Your task to perform on an android device: choose inbox layout in the gmail app Image 0: 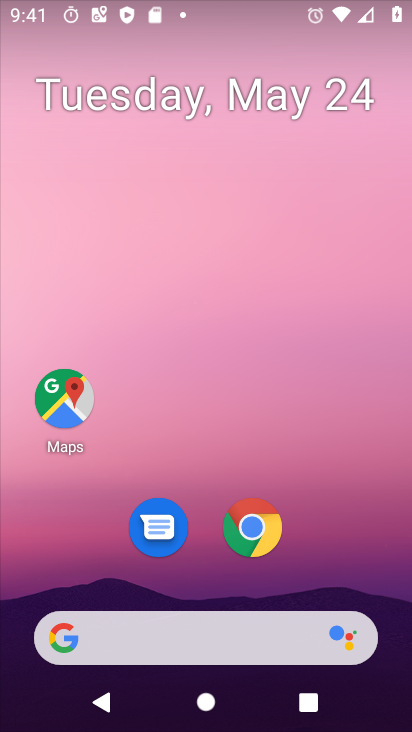
Step 0: drag from (346, 391) to (339, 320)
Your task to perform on an android device: choose inbox layout in the gmail app Image 1: 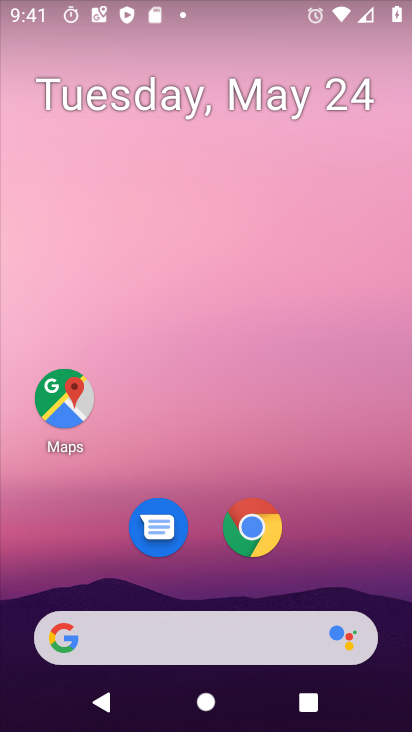
Step 1: drag from (377, 679) to (326, 256)
Your task to perform on an android device: choose inbox layout in the gmail app Image 2: 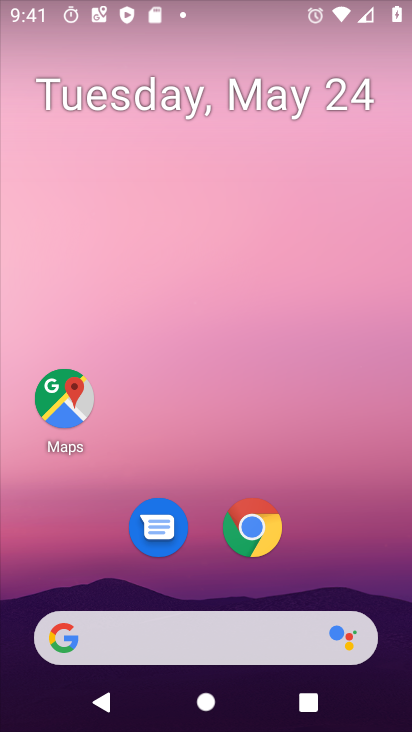
Step 2: click (312, 143)
Your task to perform on an android device: choose inbox layout in the gmail app Image 3: 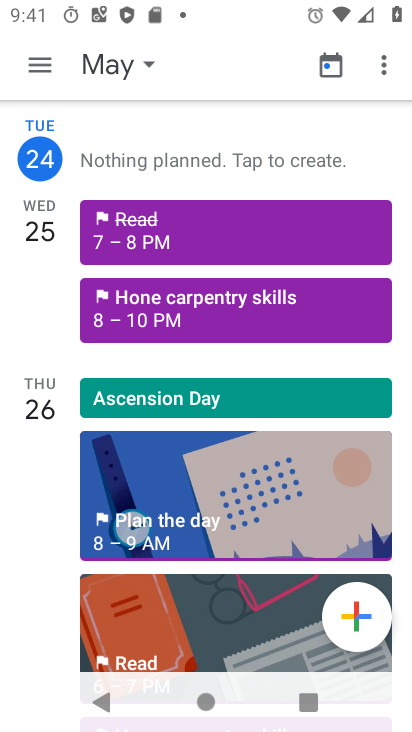
Step 3: click (393, 412)
Your task to perform on an android device: choose inbox layout in the gmail app Image 4: 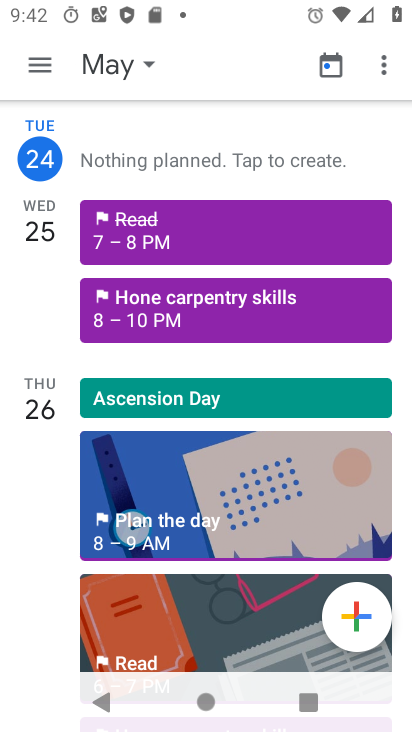
Step 4: press home button
Your task to perform on an android device: choose inbox layout in the gmail app Image 5: 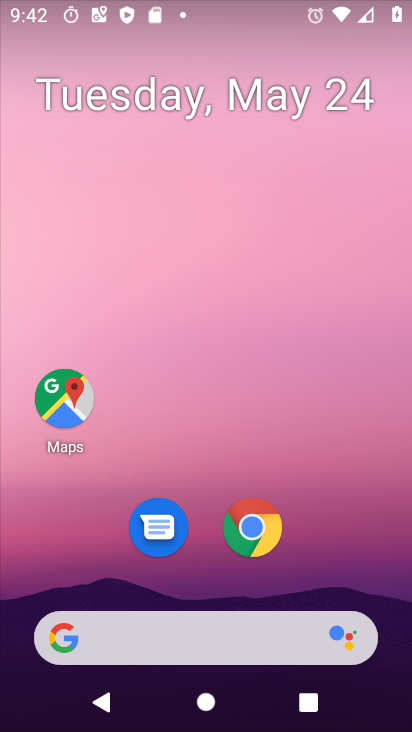
Step 5: drag from (392, 695) to (375, 242)
Your task to perform on an android device: choose inbox layout in the gmail app Image 6: 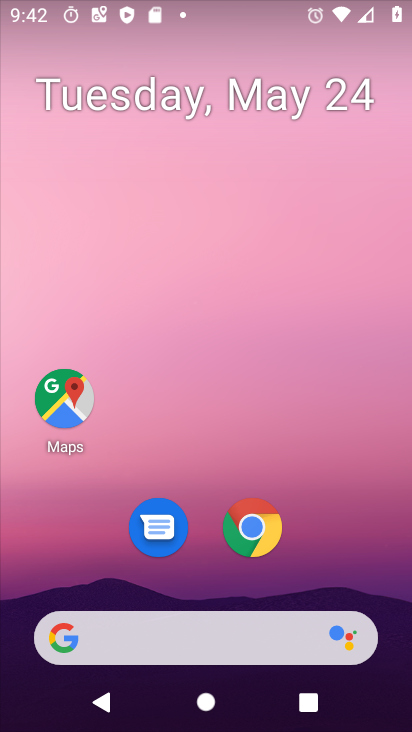
Step 6: drag from (393, 703) to (334, 183)
Your task to perform on an android device: choose inbox layout in the gmail app Image 7: 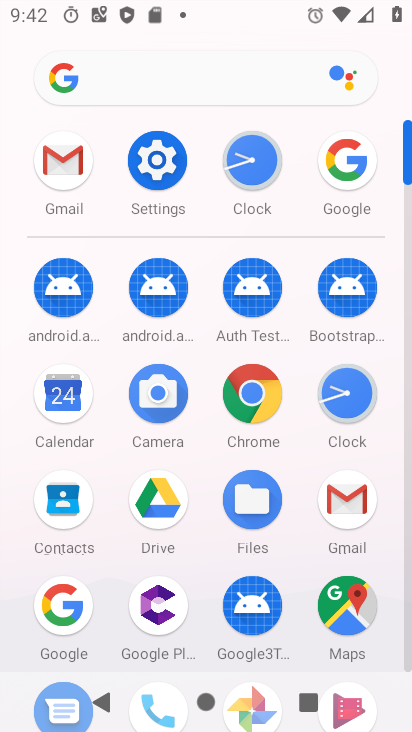
Step 7: click (61, 153)
Your task to perform on an android device: choose inbox layout in the gmail app Image 8: 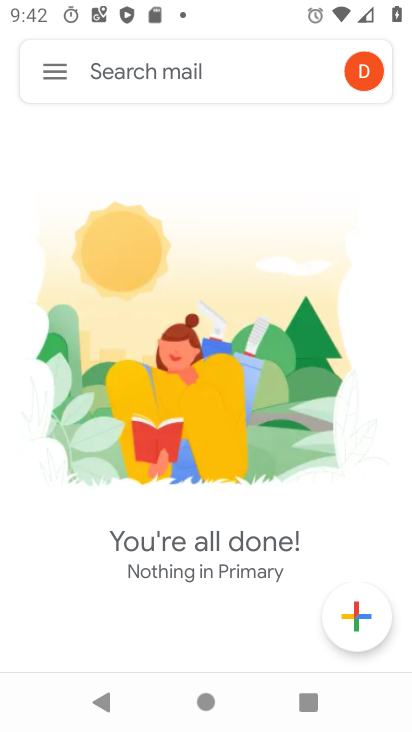
Step 8: click (58, 70)
Your task to perform on an android device: choose inbox layout in the gmail app Image 9: 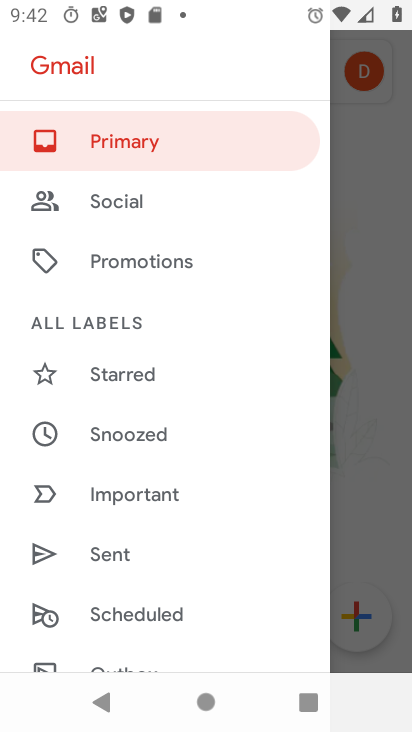
Step 9: click (143, 139)
Your task to perform on an android device: choose inbox layout in the gmail app Image 10: 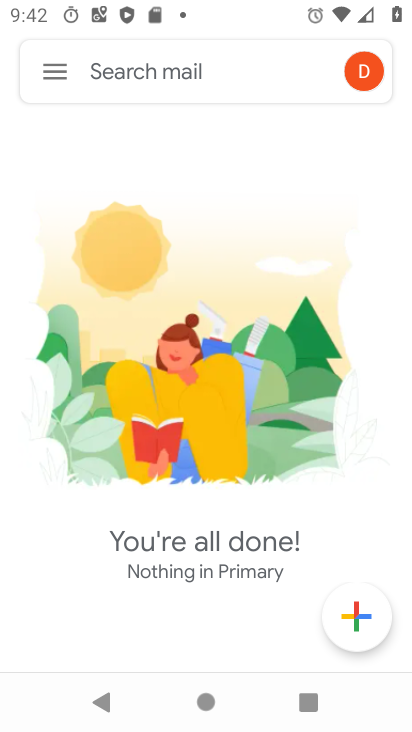
Step 10: task complete